Your task to perform on an android device: Go to network settings Image 0: 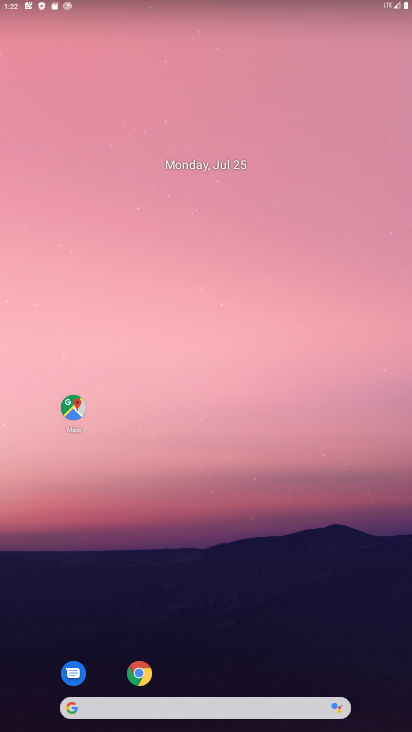
Step 0: drag from (322, 649) to (309, 119)
Your task to perform on an android device: Go to network settings Image 1: 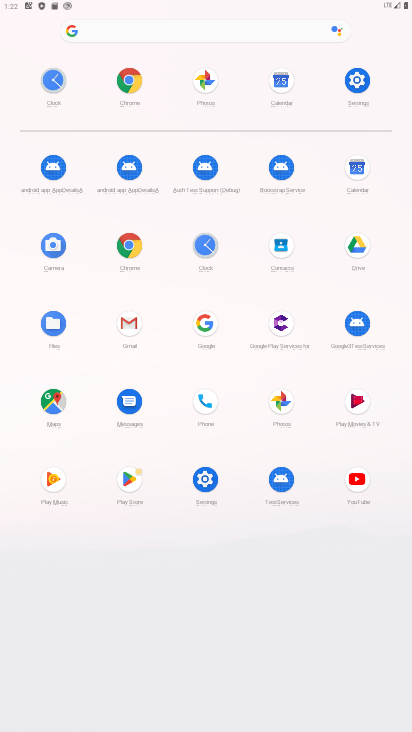
Step 1: click (207, 480)
Your task to perform on an android device: Go to network settings Image 2: 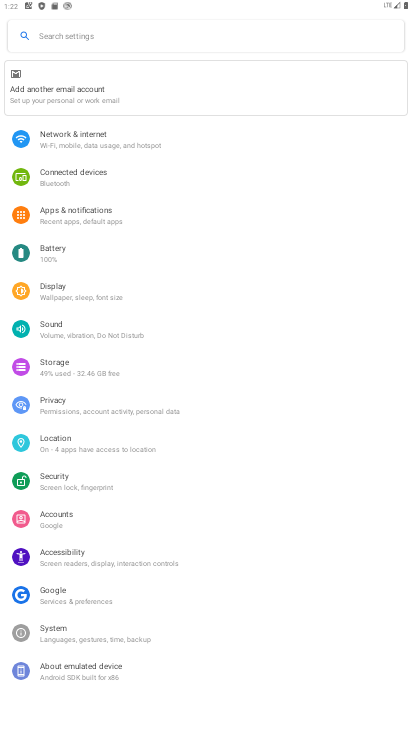
Step 2: click (55, 133)
Your task to perform on an android device: Go to network settings Image 3: 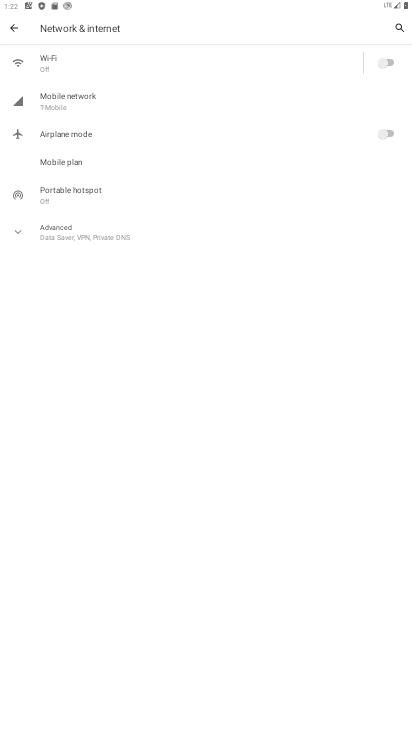
Step 3: click (51, 100)
Your task to perform on an android device: Go to network settings Image 4: 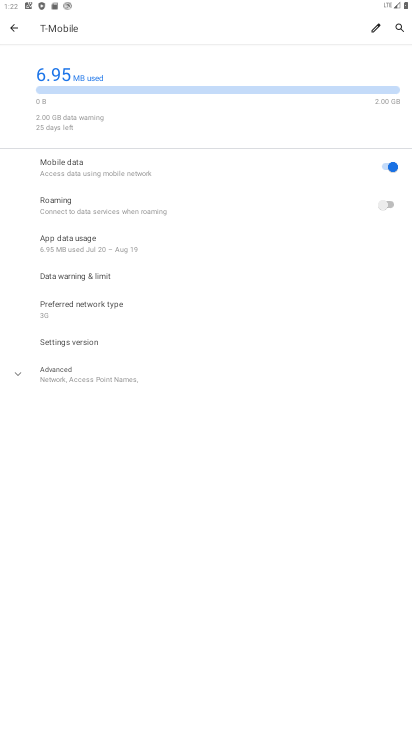
Step 4: click (19, 373)
Your task to perform on an android device: Go to network settings Image 5: 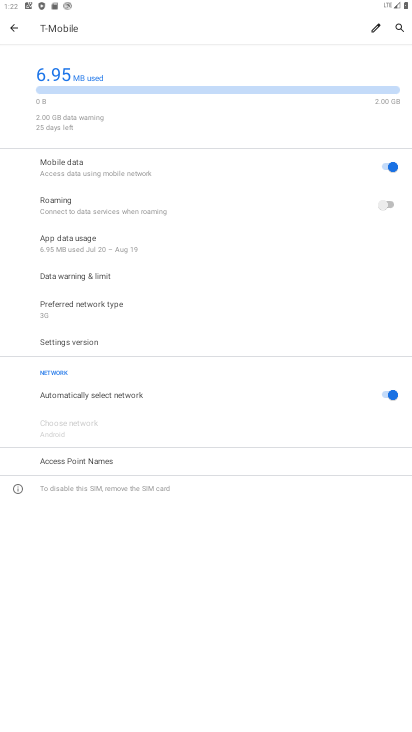
Step 5: task complete